Your task to perform on an android device: delete the emails in spam in the gmail app Image 0: 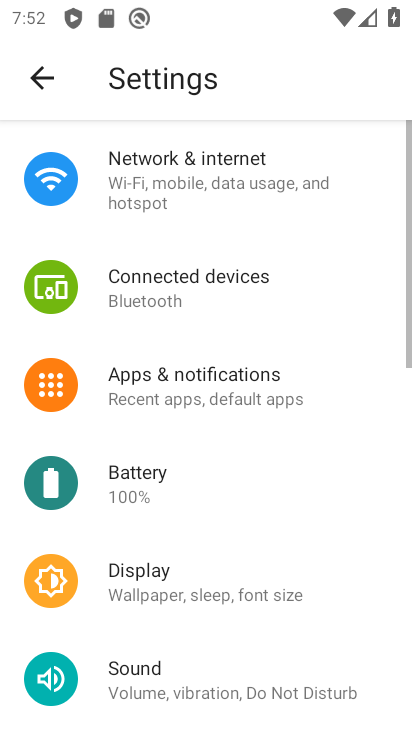
Step 0: press home button
Your task to perform on an android device: delete the emails in spam in the gmail app Image 1: 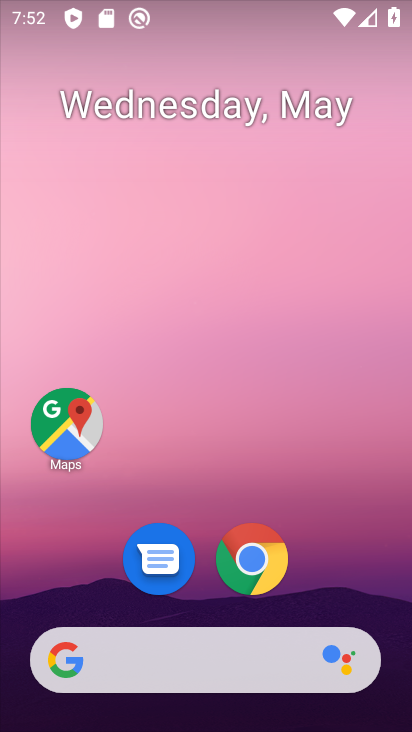
Step 1: drag from (342, 516) to (348, 29)
Your task to perform on an android device: delete the emails in spam in the gmail app Image 2: 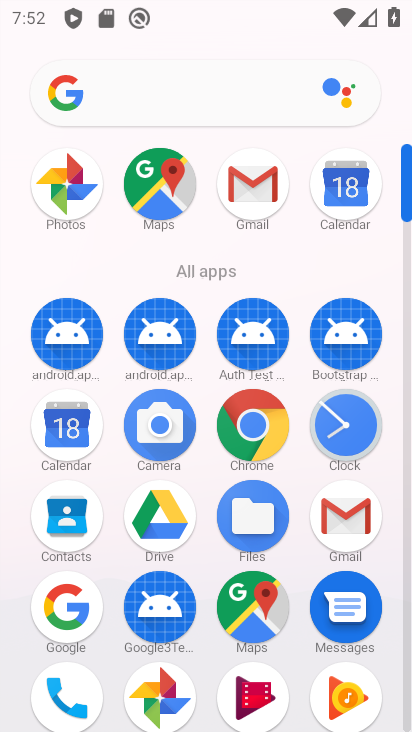
Step 2: click (262, 179)
Your task to perform on an android device: delete the emails in spam in the gmail app Image 3: 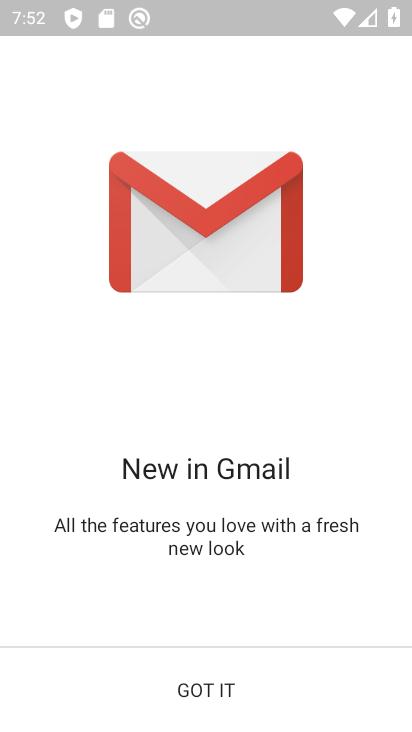
Step 3: click (234, 692)
Your task to perform on an android device: delete the emails in spam in the gmail app Image 4: 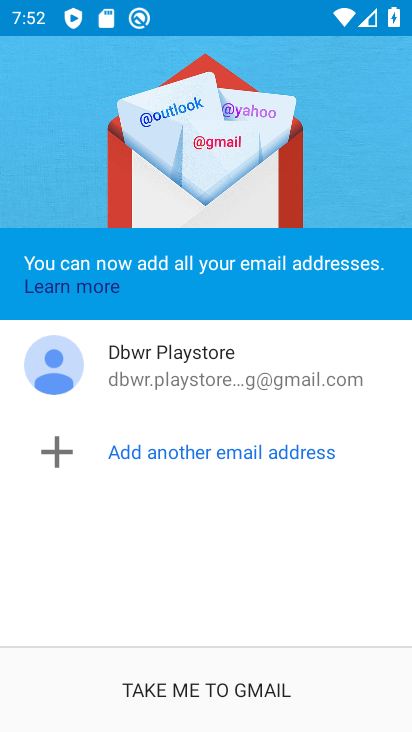
Step 4: click (191, 685)
Your task to perform on an android device: delete the emails in spam in the gmail app Image 5: 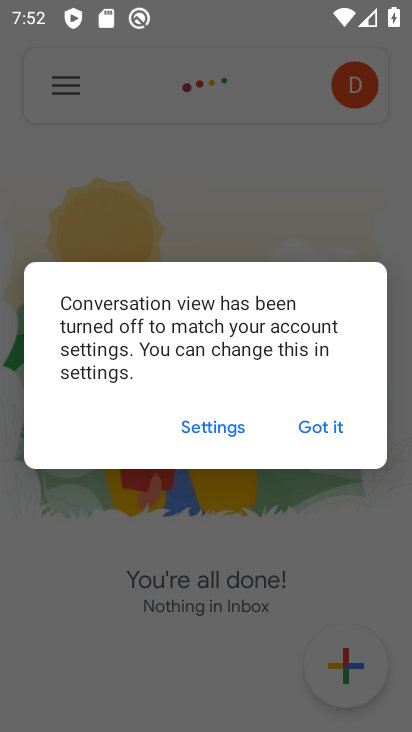
Step 5: click (317, 426)
Your task to perform on an android device: delete the emails in spam in the gmail app Image 6: 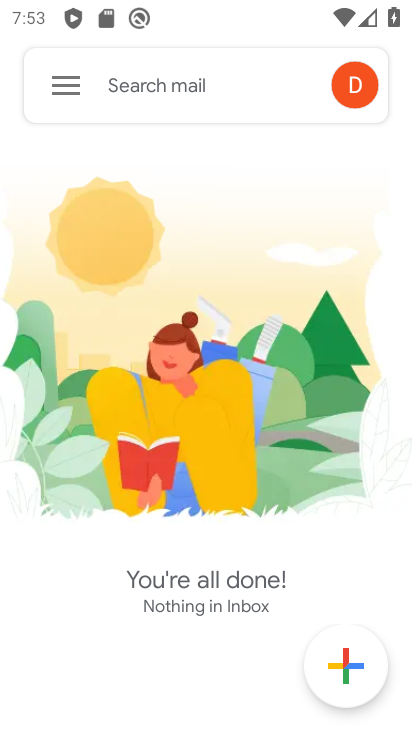
Step 6: click (55, 75)
Your task to perform on an android device: delete the emails in spam in the gmail app Image 7: 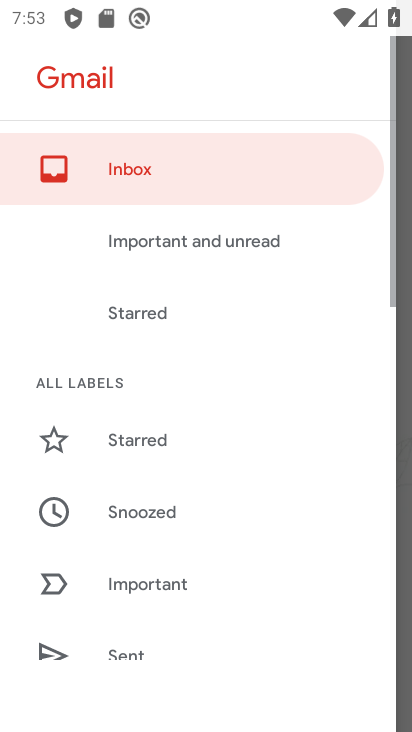
Step 7: drag from (171, 576) to (262, 74)
Your task to perform on an android device: delete the emails in spam in the gmail app Image 8: 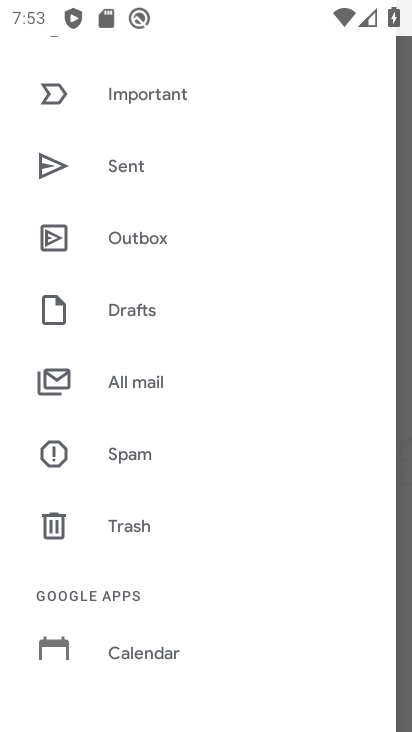
Step 8: drag from (200, 615) to (186, 544)
Your task to perform on an android device: delete the emails in spam in the gmail app Image 9: 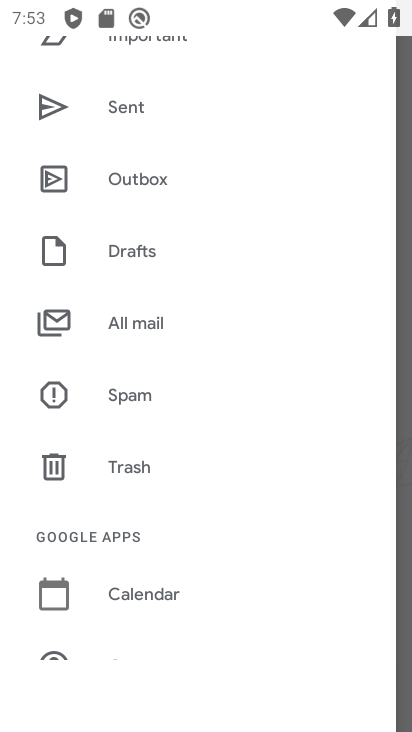
Step 9: click (129, 395)
Your task to perform on an android device: delete the emails in spam in the gmail app Image 10: 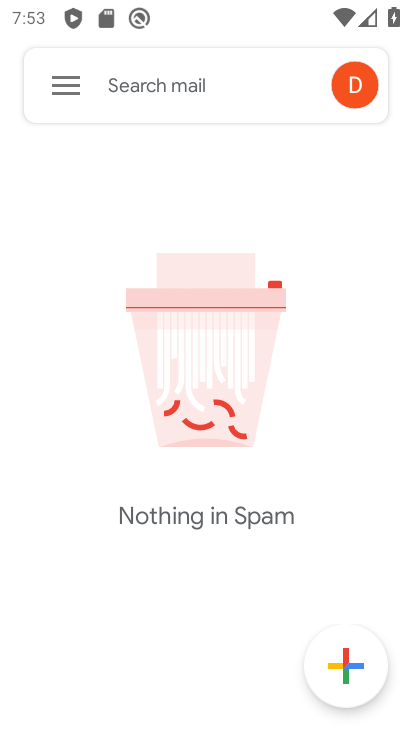
Step 10: task complete